Your task to perform on an android device: refresh tabs in the chrome app Image 0: 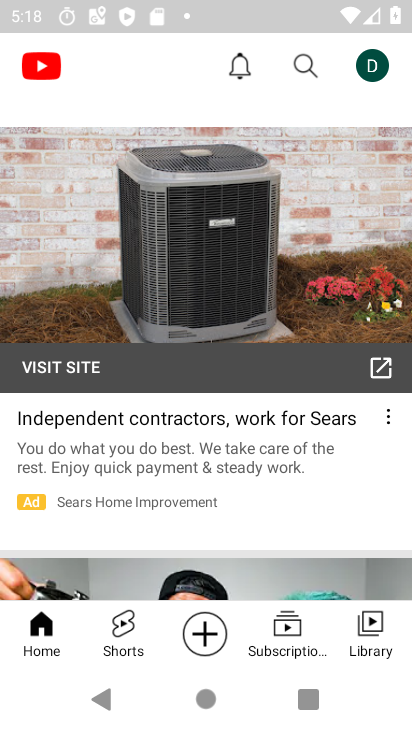
Step 0: press home button
Your task to perform on an android device: refresh tabs in the chrome app Image 1: 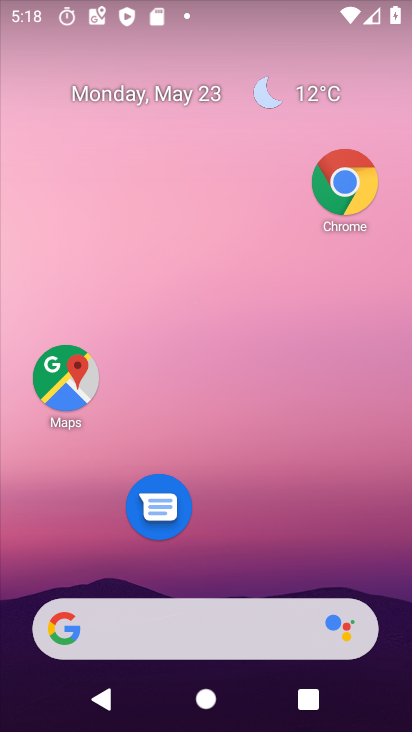
Step 1: click (346, 184)
Your task to perform on an android device: refresh tabs in the chrome app Image 2: 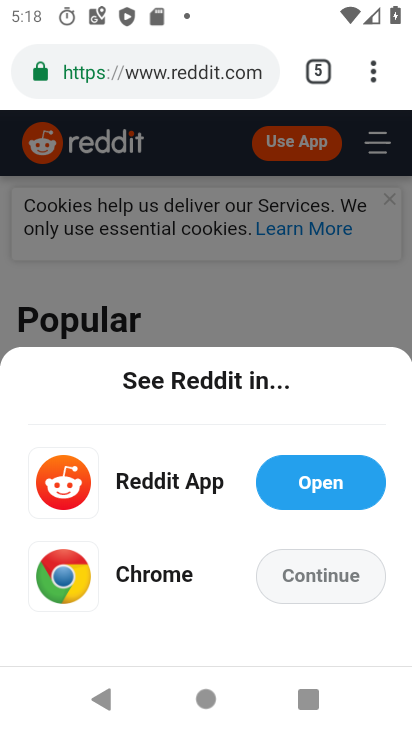
Step 2: click (380, 72)
Your task to perform on an android device: refresh tabs in the chrome app Image 3: 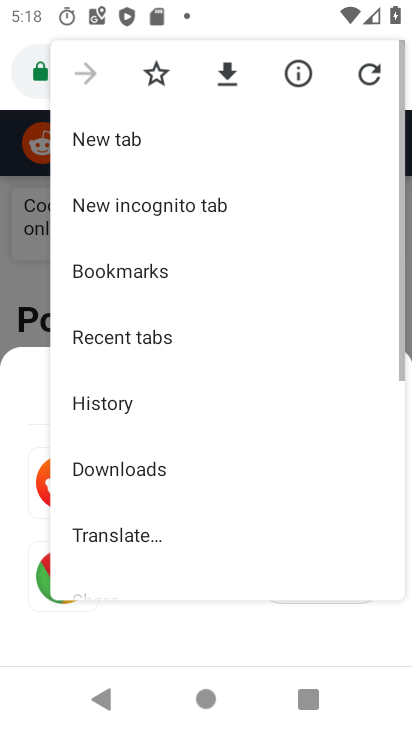
Step 3: click (380, 72)
Your task to perform on an android device: refresh tabs in the chrome app Image 4: 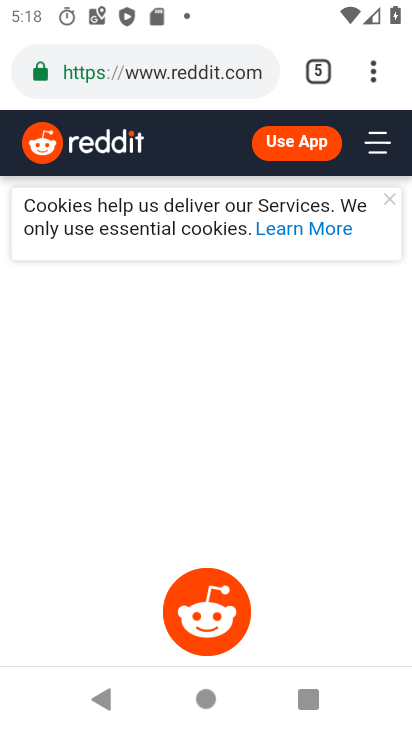
Step 4: task complete